Your task to perform on an android device: check out phone information Image 0: 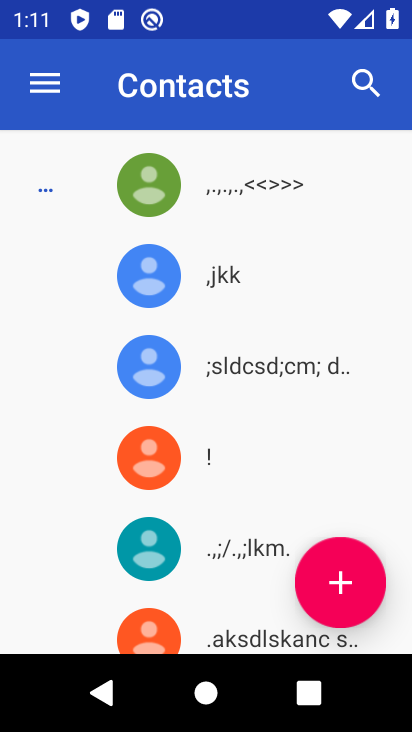
Step 0: press home button
Your task to perform on an android device: check out phone information Image 1: 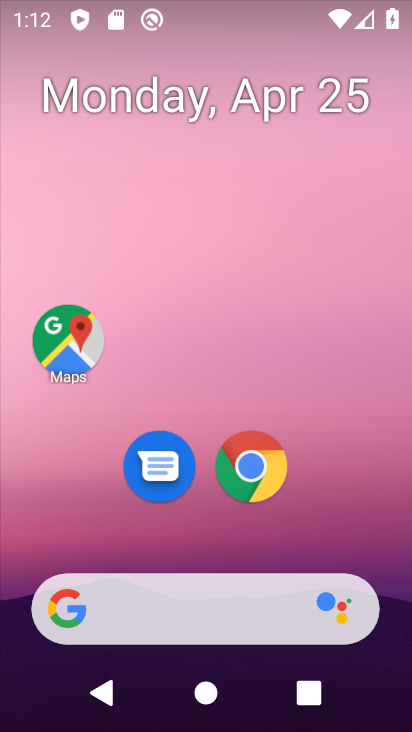
Step 1: drag from (308, 558) to (296, 46)
Your task to perform on an android device: check out phone information Image 2: 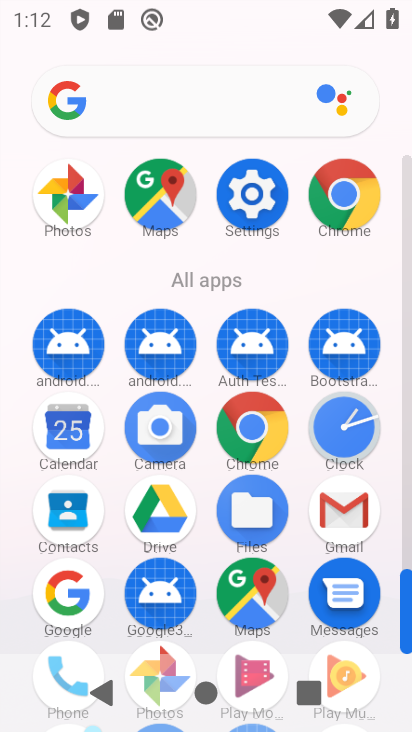
Step 2: click (252, 180)
Your task to perform on an android device: check out phone information Image 3: 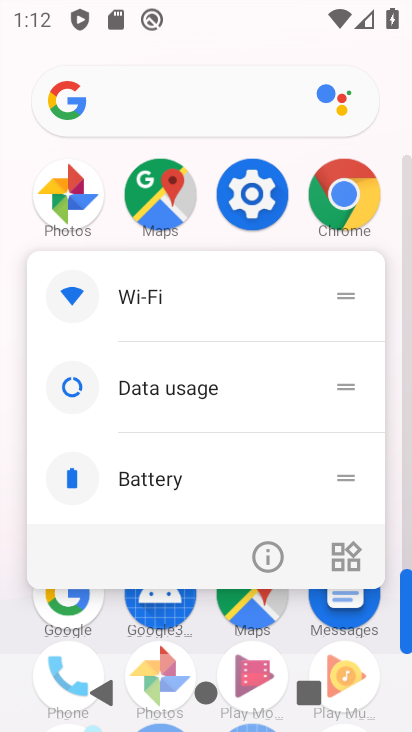
Step 3: click (252, 180)
Your task to perform on an android device: check out phone information Image 4: 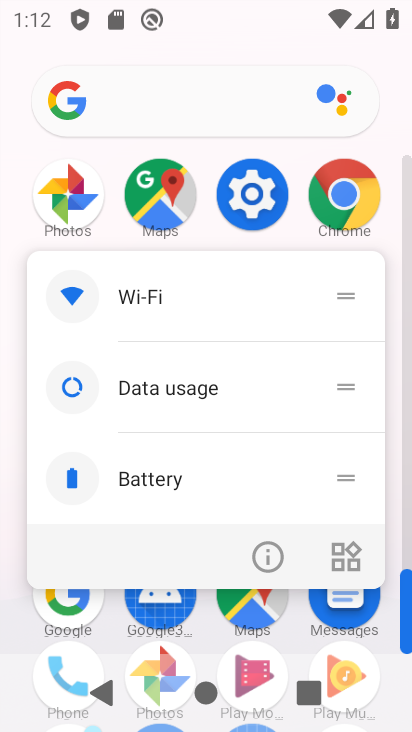
Step 4: click (252, 180)
Your task to perform on an android device: check out phone information Image 5: 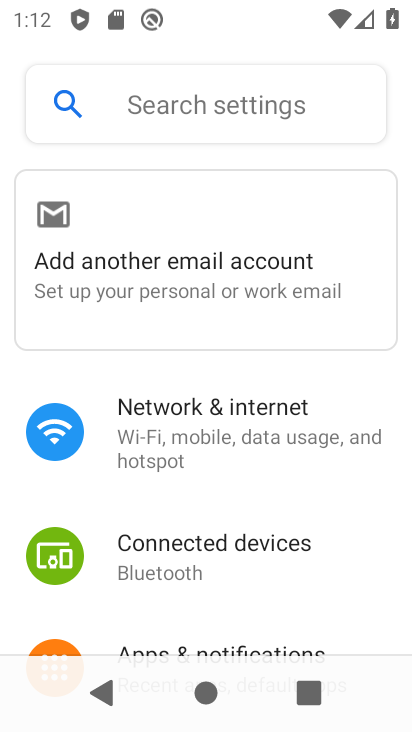
Step 5: drag from (244, 532) to (273, 264)
Your task to perform on an android device: check out phone information Image 6: 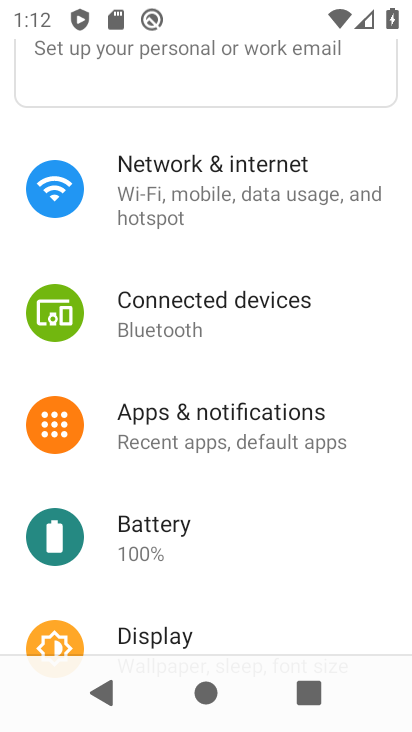
Step 6: drag from (304, 509) to (328, 269)
Your task to perform on an android device: check out phone information Image 7: 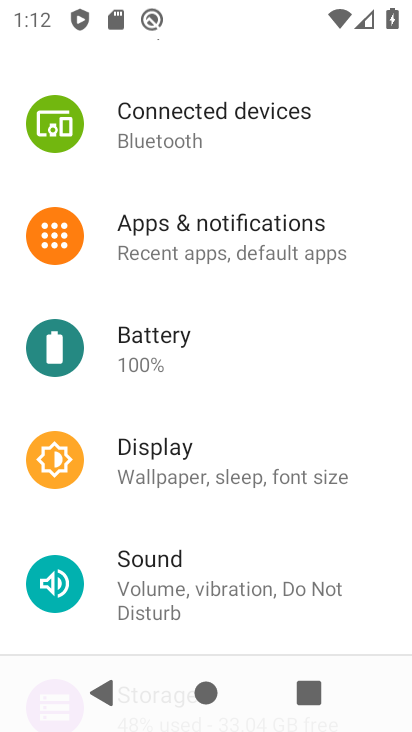
Step 7: drag from (279, 531) to (274, 373)
Your task to perform on an android device: check out phone information Image 8: 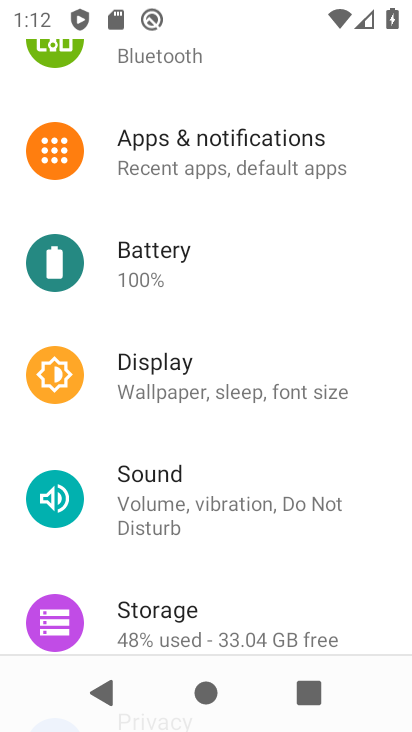
Step 8: drag from (288, 639) to (270, 424)
Your task to perform on an android device: check out phone information Image 9: 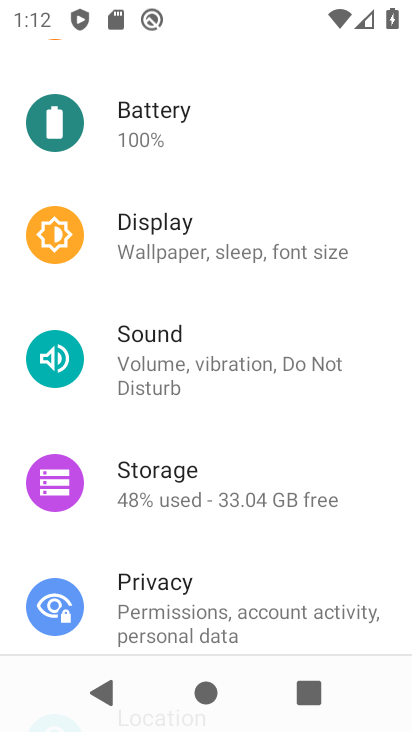
Step 9: drag from (264, 562) to (276, 371)
Your task to perform on an android device: check out phone information Image 10: 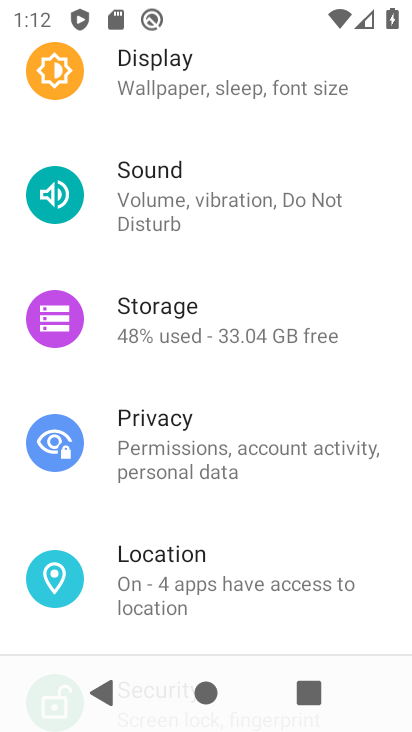
Step 10: drag from (304, 563) to (298, 351)
Your task to perform on an android device: check out phone information Image 11: 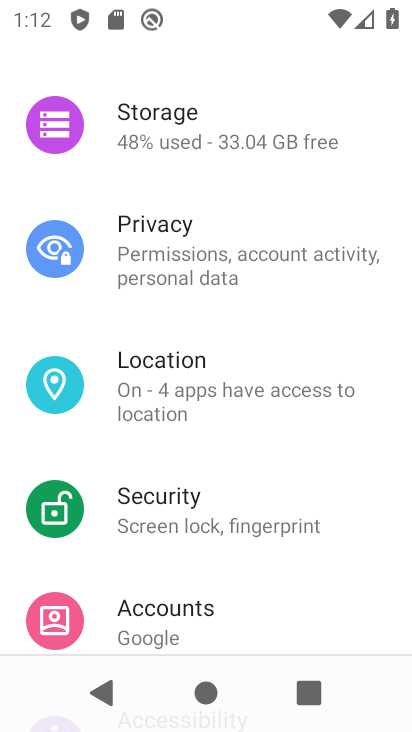
Step 11: drag from (272, 576) to (276, 382)
Your task to perform on an android device: check out phone information Image 12: 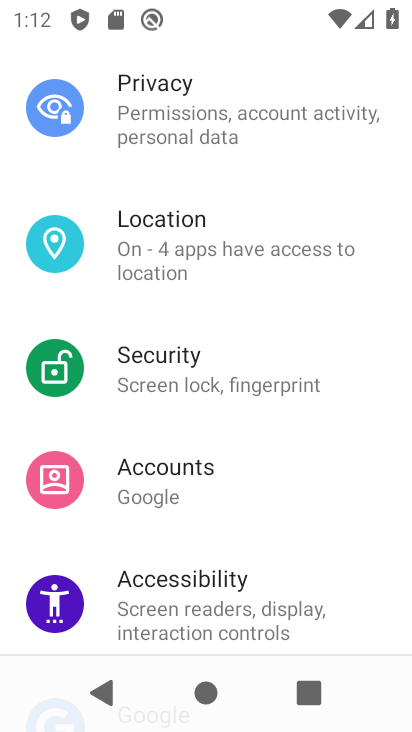
Step 12: drag from (275, 549) to (272, 394)
Your task to perform on an android device: check out phone information Image 13: 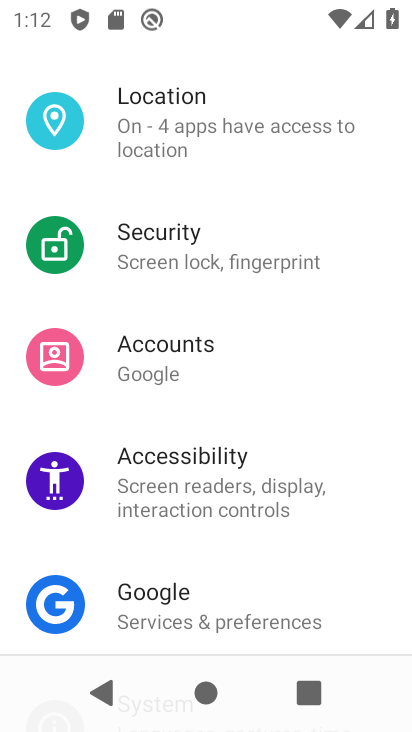
Step 13: drag from (242, 557) to (269, 359)
Your task to perform on an android device: check out phone information Image 14: 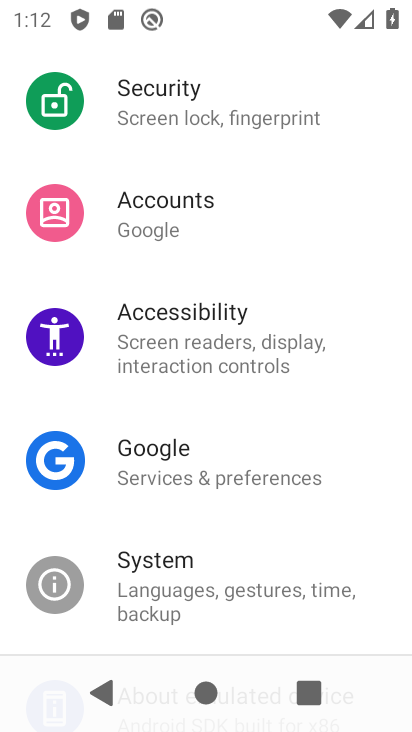
Step 14: drag from (209, 584) to (232, 410)
Your task to perform on an android device: check out phone information Image 15: 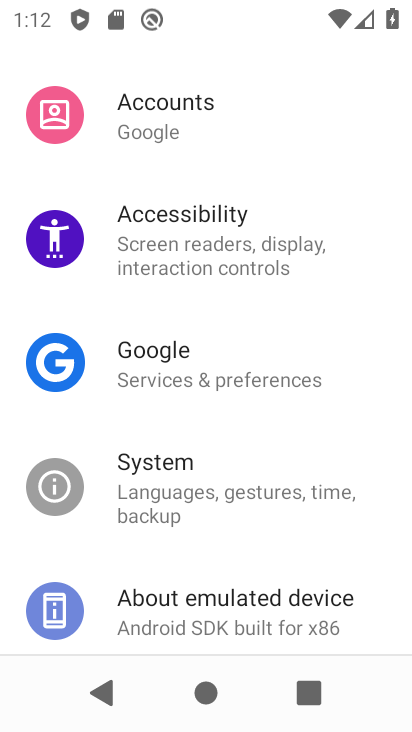
Step 15: drag from (245, 605) to (261, 442)
Your task to perform on an android device: check out phone information Image 16: 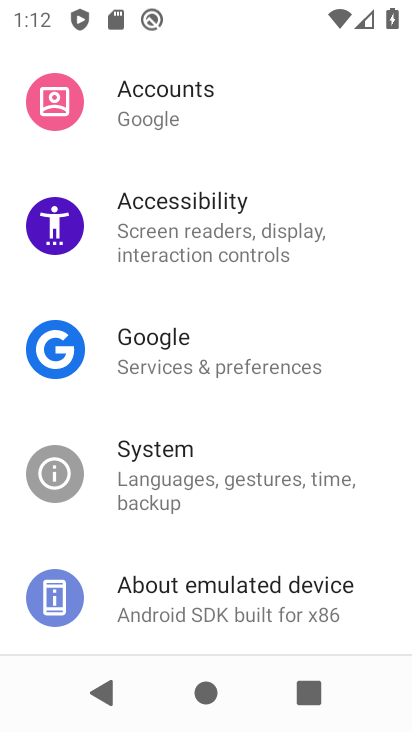
Step 16: click (231, 601)
Your task to perform on an android device: check out phone information Image 17: 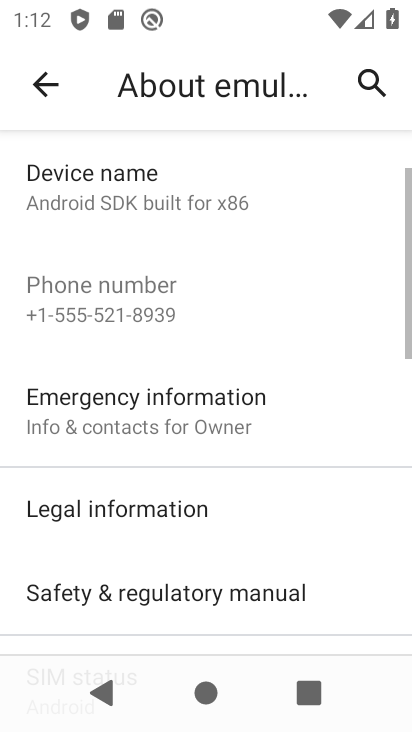
Step 17: task complete